Your task to perform on an android device: toggle wifi Image 0: 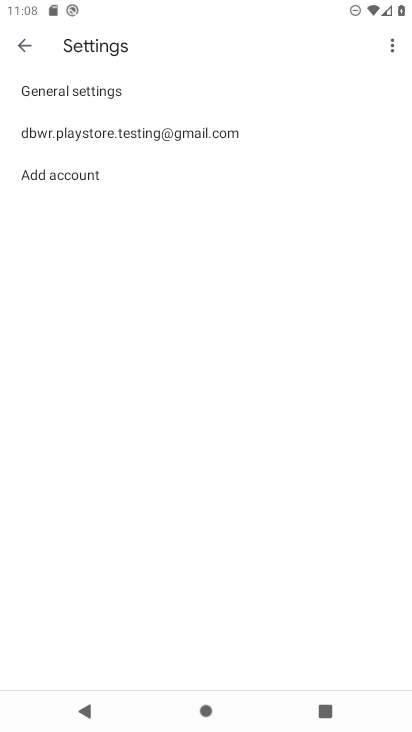
Step 0: press home button
Your task to perform on an android device: toggle wifi Image 1: 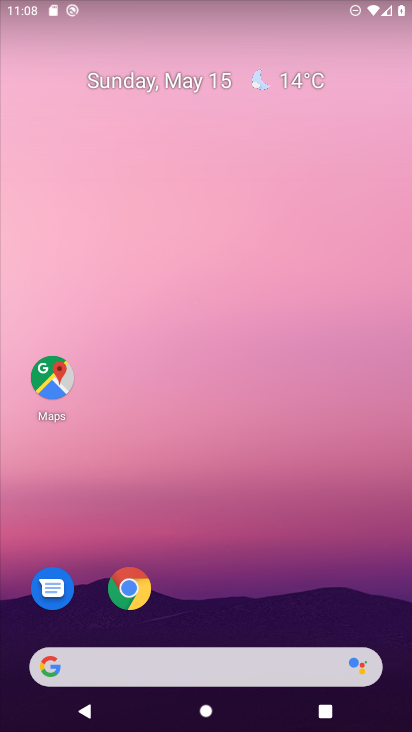
Step 1: drag from (219, 574) to (231, 137)
Your task to perform on an android device: toggle wifi Image 2: 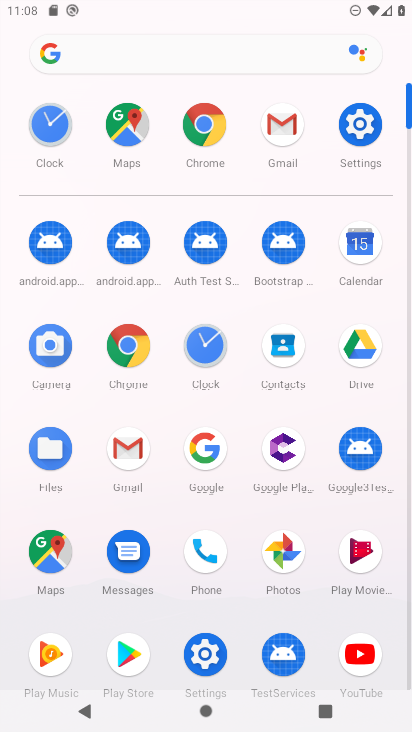
Step 2: click (207, 657)
Your task to perform on an android device: toggle wifi Image 3: 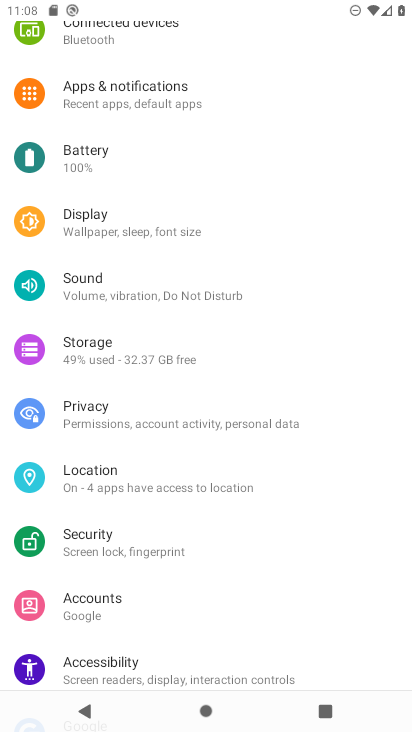
Step 3: drag from (170, 158) to (161, 517)
Your task to perform on an android device: toggle wifi Image 4: 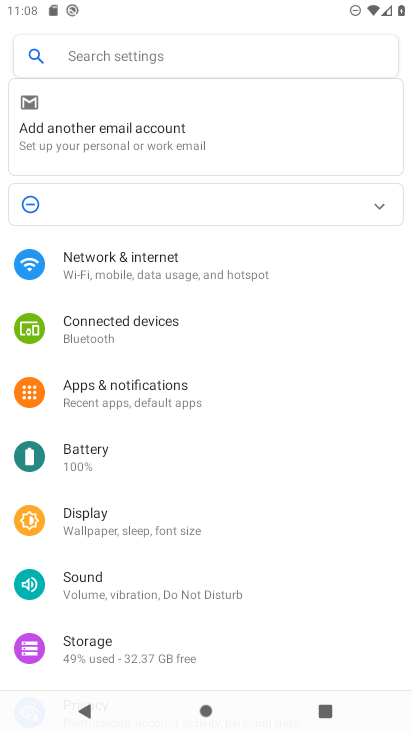
Step 4: click (132, 272)
Your task to perform on an android device: toggle wifi Image 5: 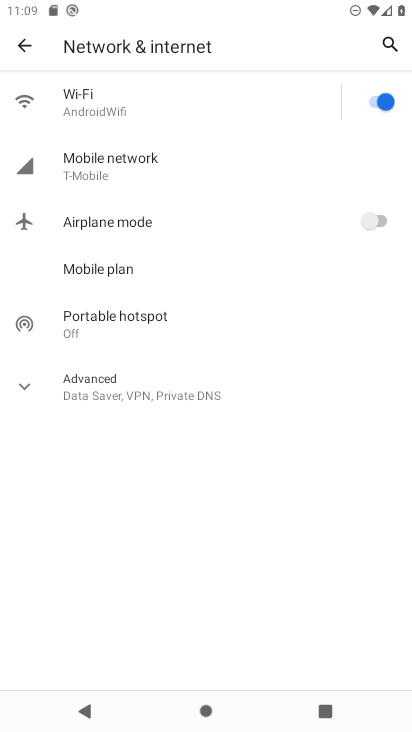
Step 5: drag from (105, 115) to (352, 593)
Your task to perform on an android device: toggle wifi Image 6: 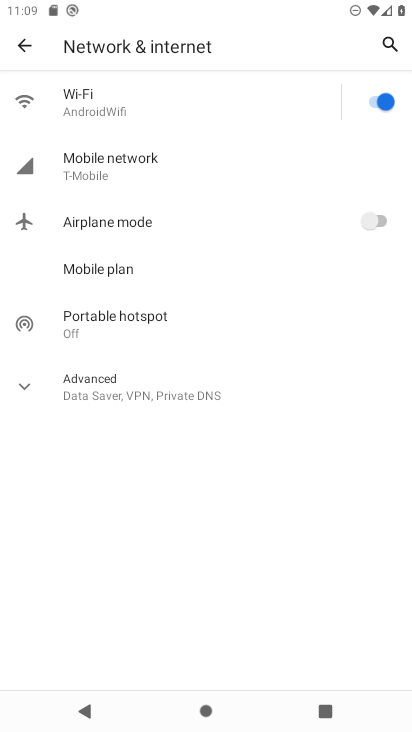
Step 6: click (363, 96)
Your task to perform on an android device: toggle wifi Image 7: 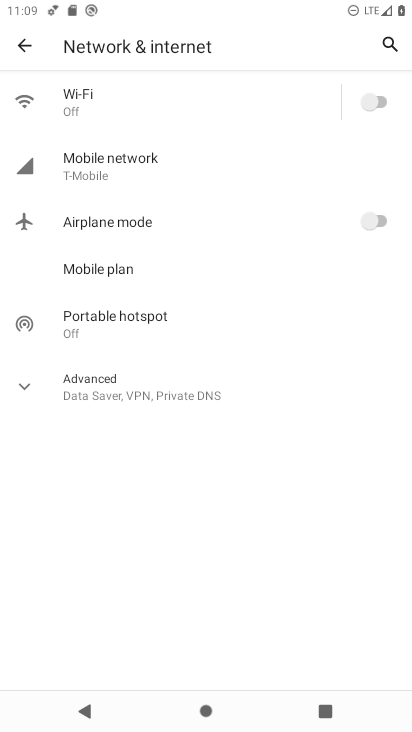
Step 7: task complete